Your task to perform on an android device: turn off location Image 0: 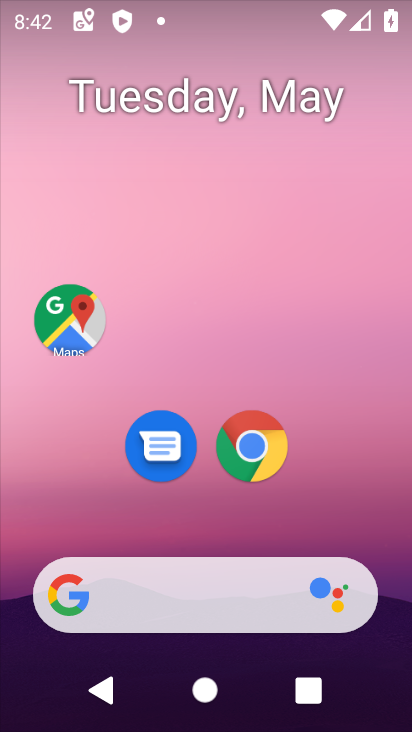
Step 0: drag from (375, 542) to (335, 13)
Your task to perform on an android device: turn off location Image 1: 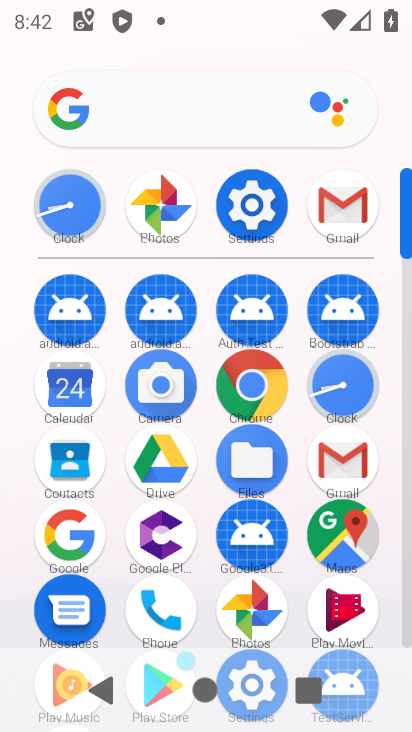
Step 1: click (253, 205)
Your task to perform on an android device: turn off location Image 2: 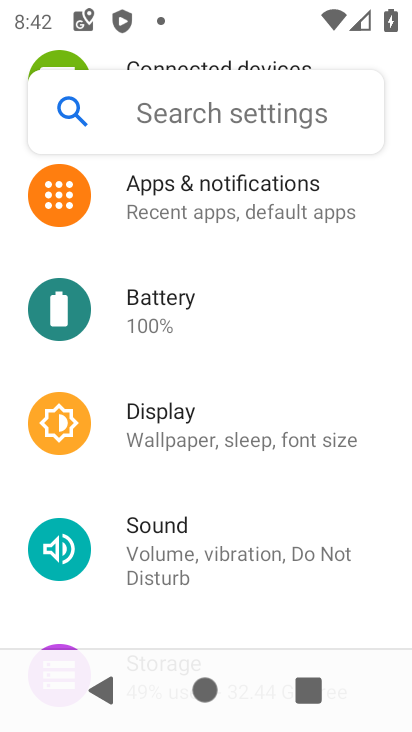
Step 2: drag from (341, 488) to (322, 135)
Your task to perform on an android device: turn off location Image 3: 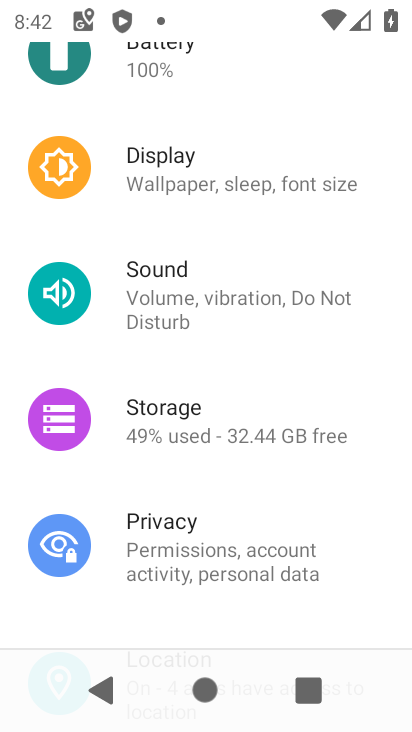
Step 3: drag from (255, 461) to (237, 122)
Your task to perform on an android device: turn off location Image 4: 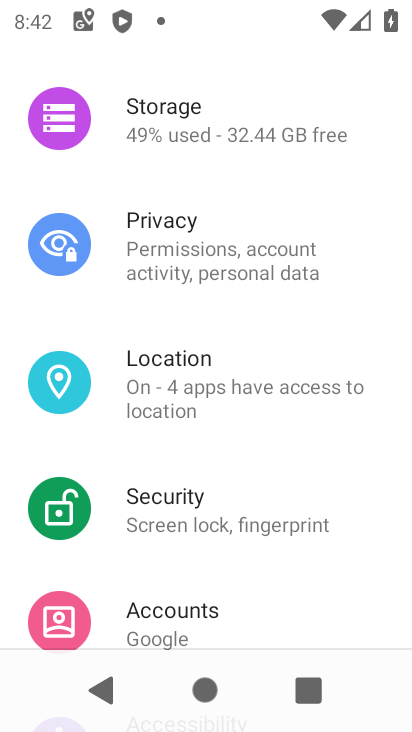
Step 4: click (189, 383)
Your task to perform on an android device: turn off location Image 5: 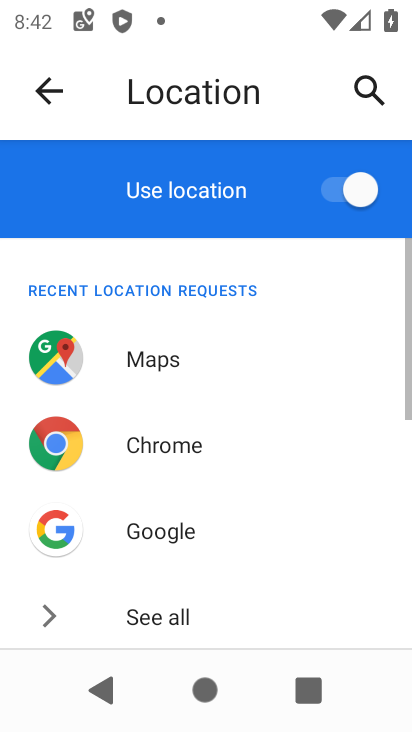
Step 5: click (352, 189)
Your task to perform on an android device: turn off location Image 6: 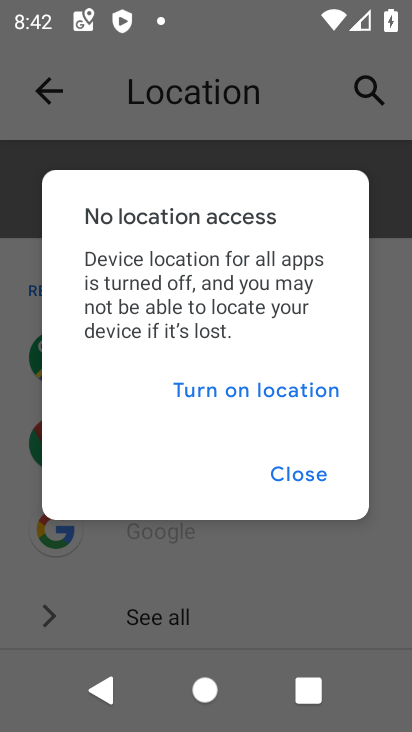
Step 6: click (282, 475)
Your task to perform on an android device: turn off location Image 7: 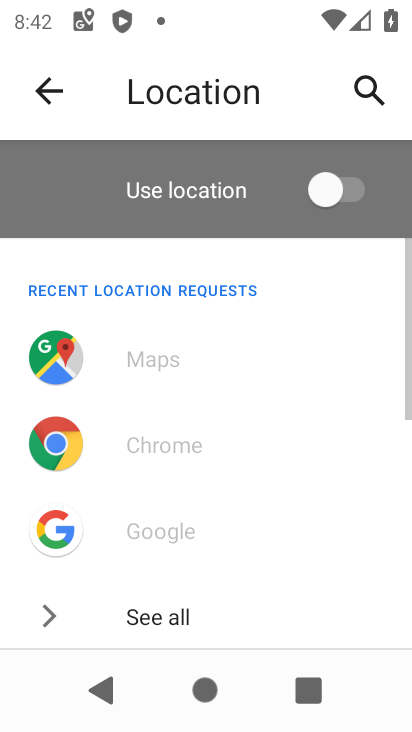
Step 7: task complete